Your task to perform on an android device: Add "alienware aurora" to the cart on amazon.com Image 0: 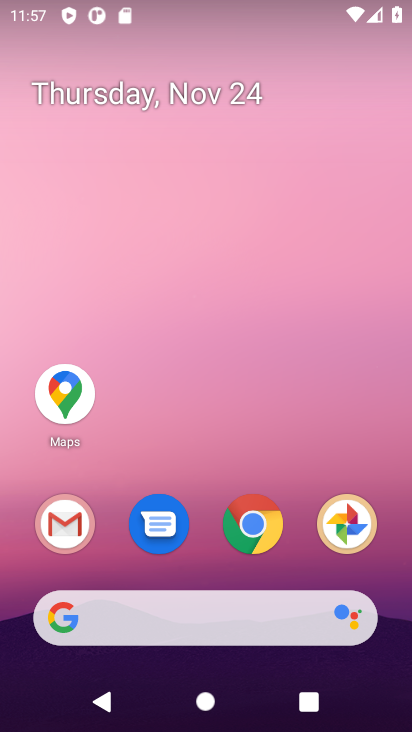
Step 0: click (261, 526)
Your task to perform on an android device: Add "alienware aurora" to the cart on amazon.com Image 1: 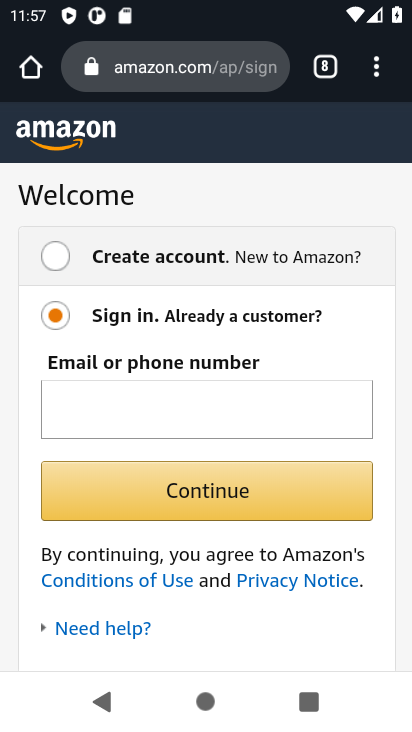
Step 1: press back button
Your task to perform on an android device: Add "alienware aurora" to the cart on amazon.com Image 2: 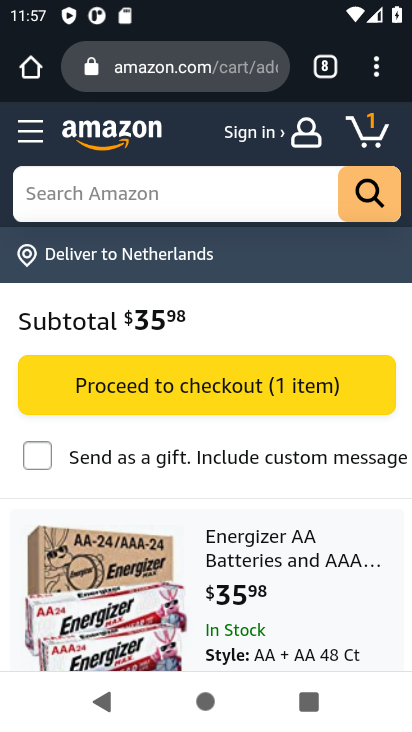
Step 2: click (92, 190)
Your task to perform on an android device: Add "alienware aurora" to the cart on amazon.com Image 3: 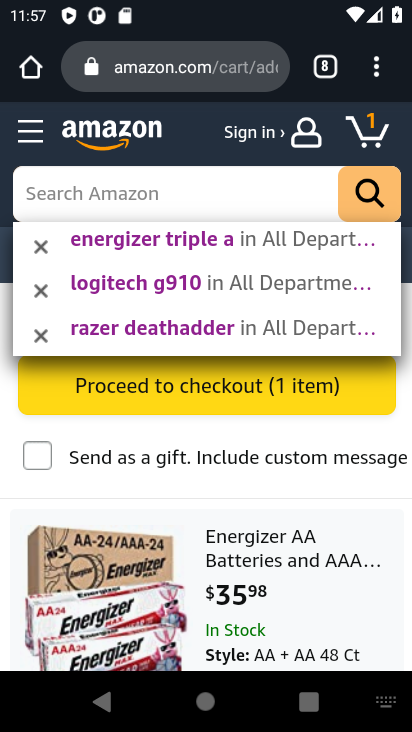
Step 3: type "alienware aurora"
Your task to perform on an android device: Add "alienware aurora" to the cart on amazon.com Image 4: 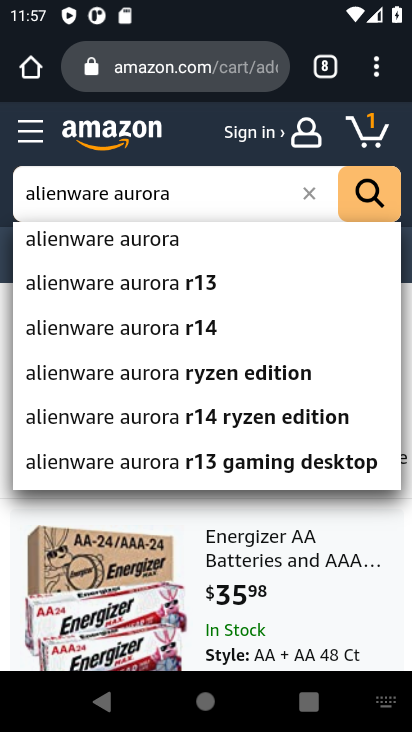
Step 4: click (110, 243)
Your task to perform on an android device: Add "alienware aurora" to the cart on amazon.com Image 5: 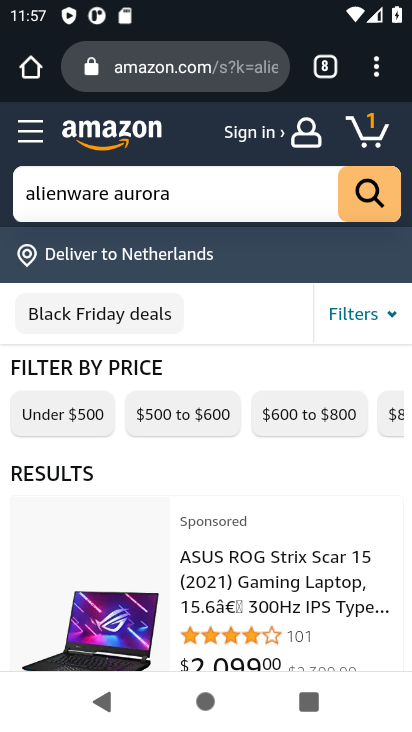
Step 5: drag from (142, 486) to (143, 294)
Your task to perform on an android device: Add "alienware aurora" to the cart on amazon.com Image 6: 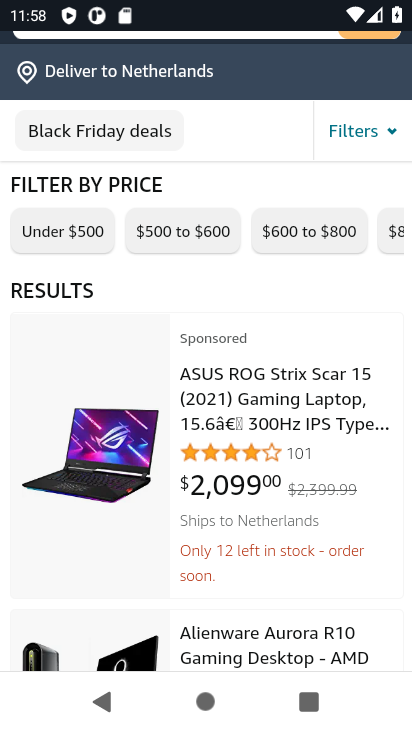
Step 6: drag from (111, 496) to (134, 241)
Your task to perform on an android device: Add "alienware aurora" to the cart on amazon.com Image 7: 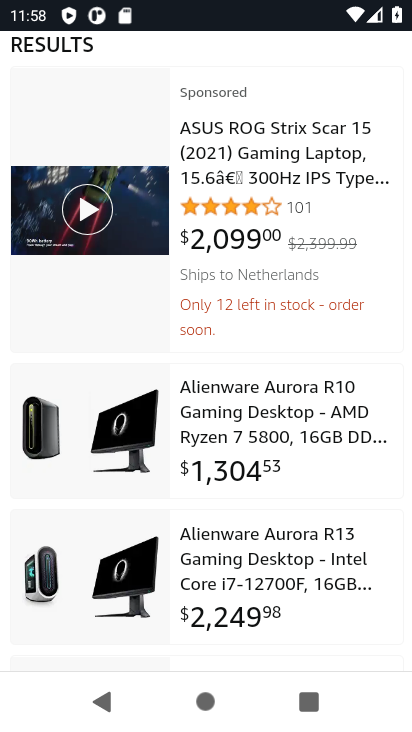
Step 7: click (97, 431)
Your task to perform on an android device: Add "alienware aurora" to the cart on amazon.com Image 8: 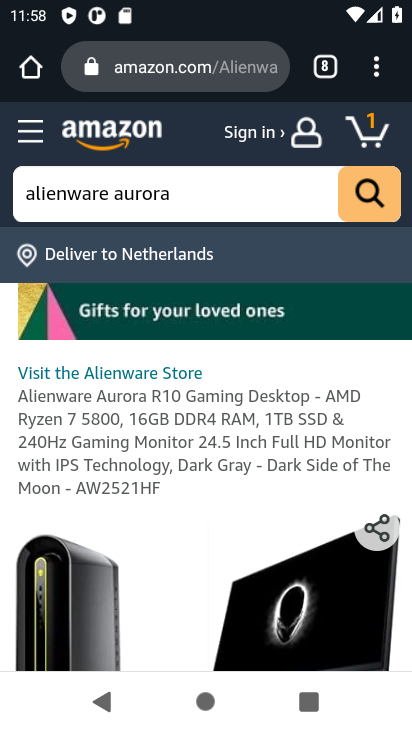
Step 8: drag from (134, 492) to (137, 272)
Your task to perform on an android device: Add "alienware aurora" to the cart on amazon.com Image 9: 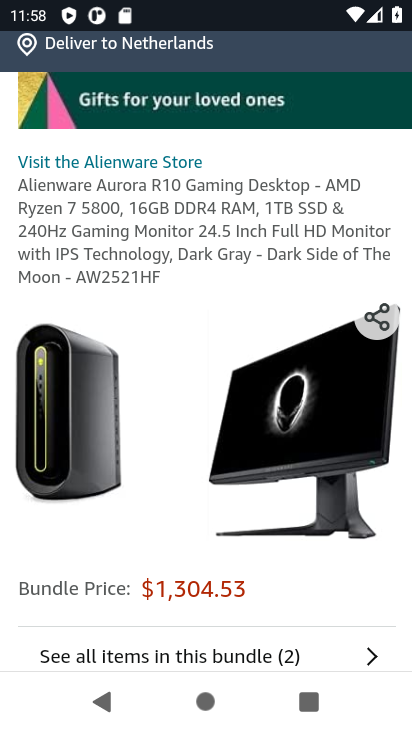
Step 9: drag from (128, 489) to (159, 227)
Your task to perform on an android device: Add "alienware aurora" to the cart on amazon.com Image 10: 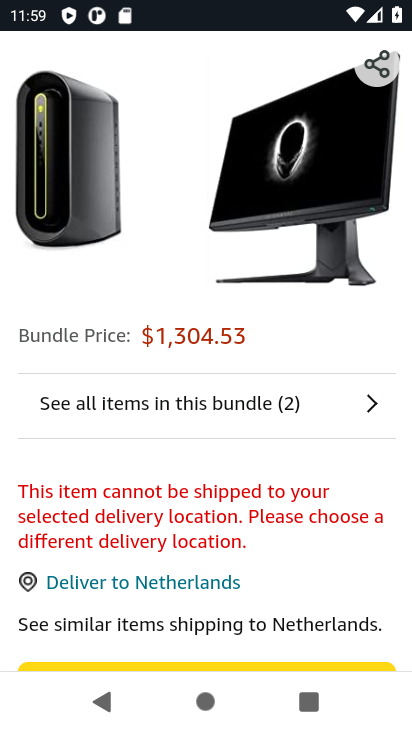
Step 10: drag from (194, 510) to (205, 257)
Your task to perform on an android device: Add "alienware aurora" to the cart on amazon.com Image 11: 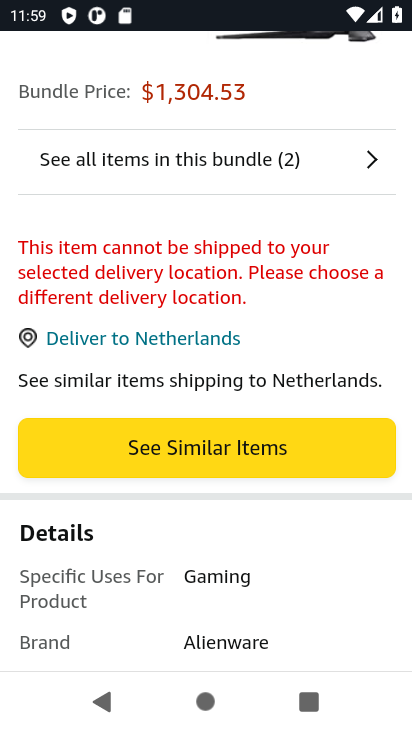
Step 11: press back button
Your task to perform on an android device: Add "alienware aurora" to the cart on amazon.com Image 12: 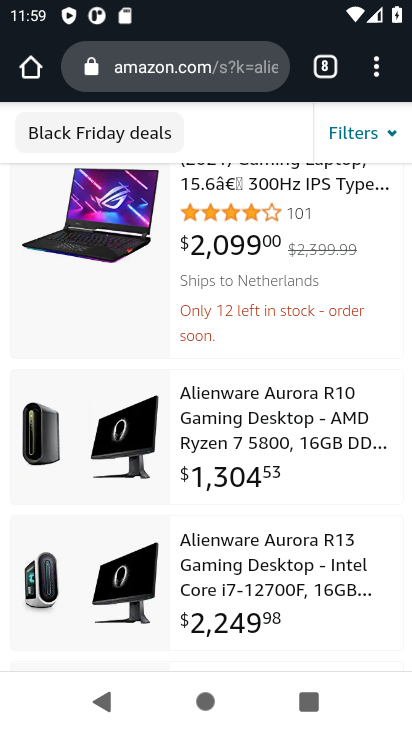
Step 12: drag from (181, 542) to (194, 315)
Your task to perform on an android device: Add "alienware aurora" to the cart on amazon.com Image 13: 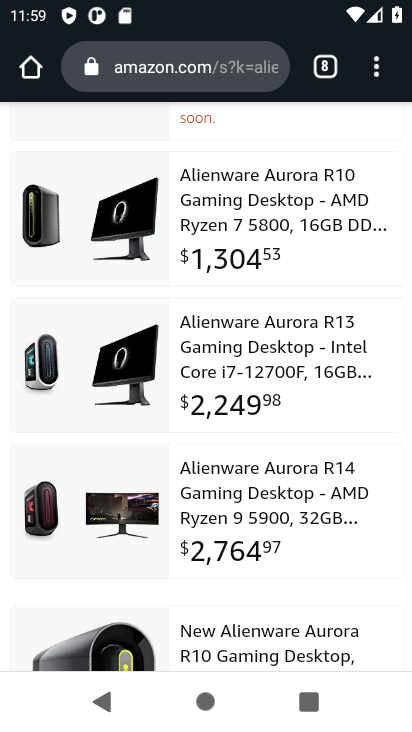
Step 13: drag from (104, 474) to (134, 264)
Your task to perform on an android device: Add "alienware aurora" to the cart on amazon.com Image 14: 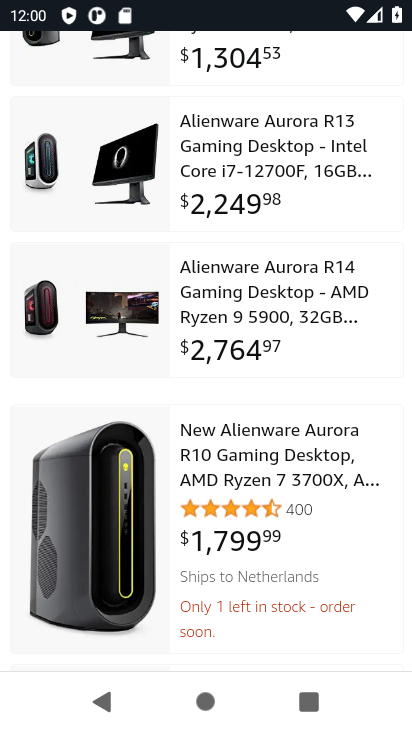
Step 14: drag from (207, 516) to (219, 262)
Your task to perform on an android device: Add "alienware aurora" to the cart on amazon.com Image 15: 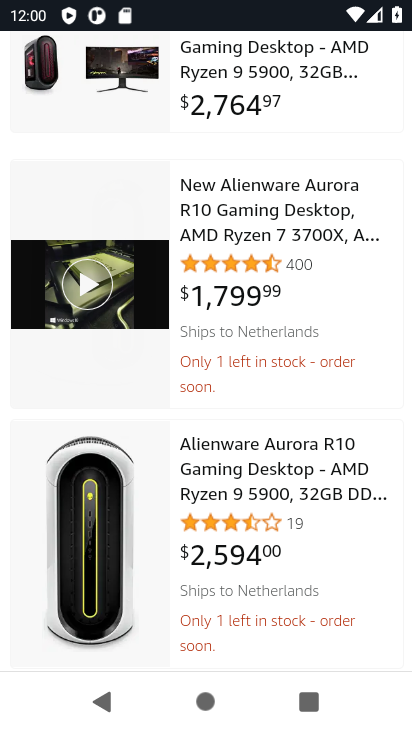
Step 15: click (128, 306)
Your task to perform on an android device: Add "alienware aurora" to the cart on amazon.com Image 16: 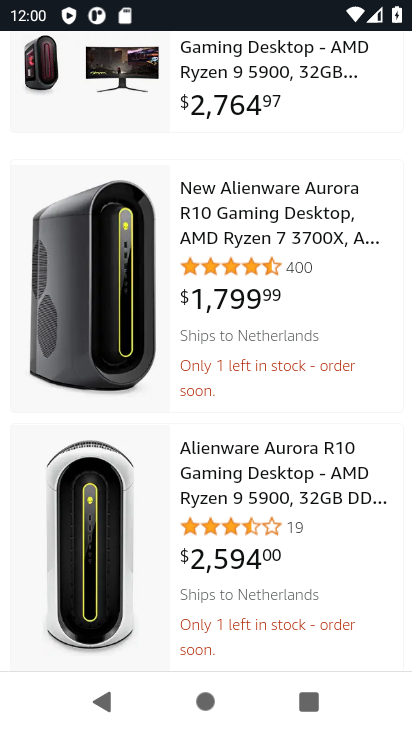
Step 16: click (222, 231)
Your task to perform on an android device: Add "alienware aurora" to the cart on amazon.com Image 17: 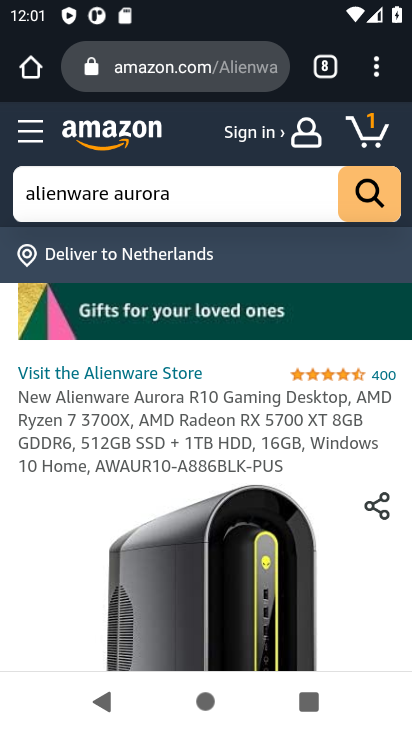
Step 17: drag from (186, 559) to (244, 188)
Your task to perform on an android device: Add "alienware aurora" to the cart on amazon.com Image 18: 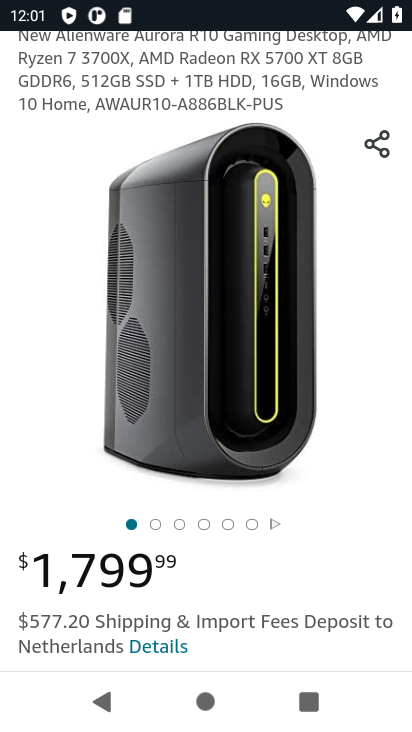
Step 18: drag from (212, 535) to (228, 197)
Your task to perform on an android device: Add "alienware aurora" to the cart on amazon.com Image 19: 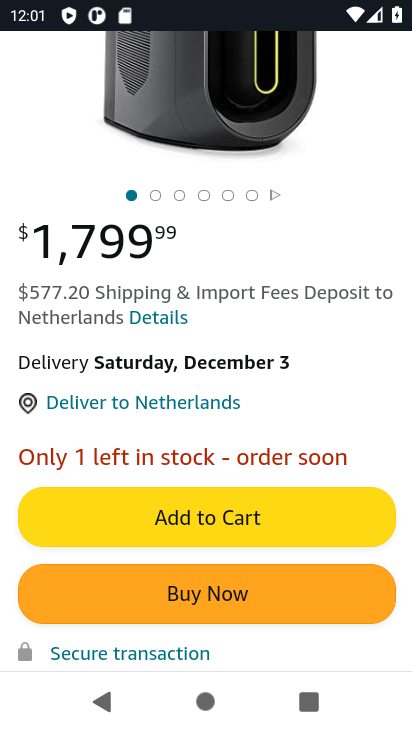
Step 19: click (180, 520)
Your task to perform on an android device: Add "alienware aurora" to the cart on amazon.com Image 20: 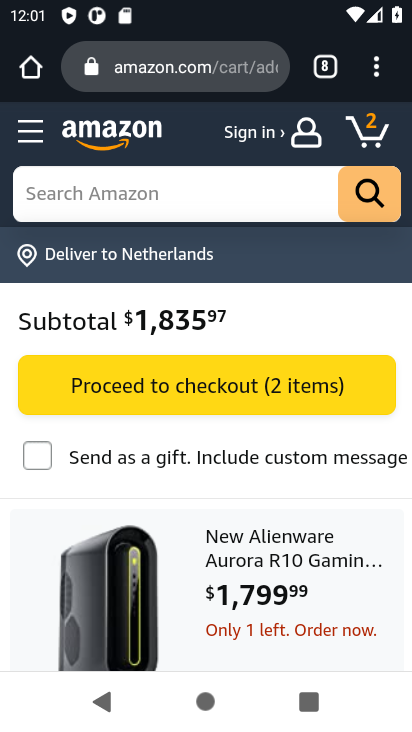
Step 20: task complete